Your task to perform on an android device: open the mobile data screen to see how much data has been used Image 0: 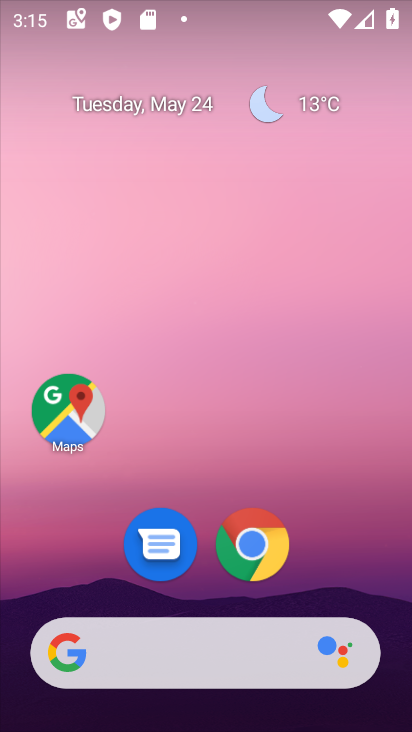
Step 0: drag from (347, 453) to (287, 0)
Your task to perform on an android device: open the mobile data screen to see how much data has been used Image 1: 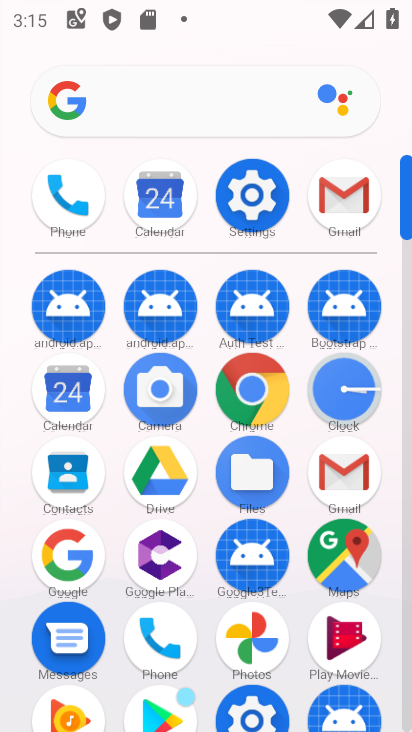
Step 1: click (266, 192)
Your task to perform on an android device: open the mobile data screen to see how much data has been used Image 2: 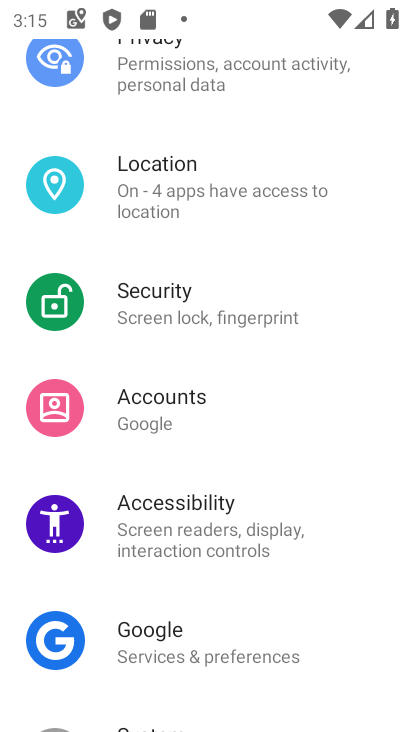
Step 2: drag from (265, 198) to (289, 619)
Your task to perform on an android device: open the mobile data screen to see how much data has been used Image 3: 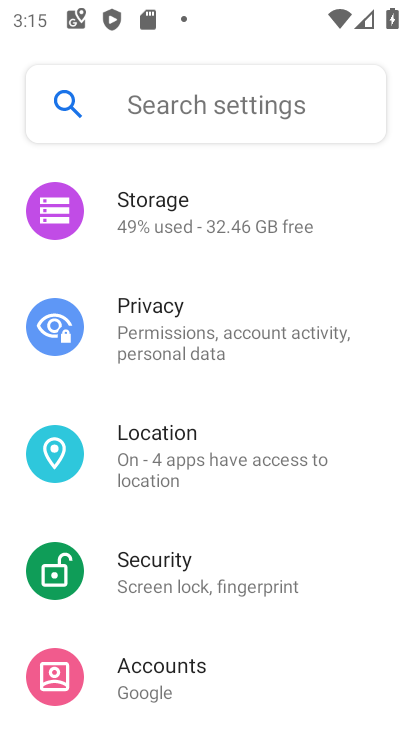
Step 3: drag from (249, 198) to (265, 666)
Your task to perform on an android device: open the mobile data screen to see how much data has been used Image 4: 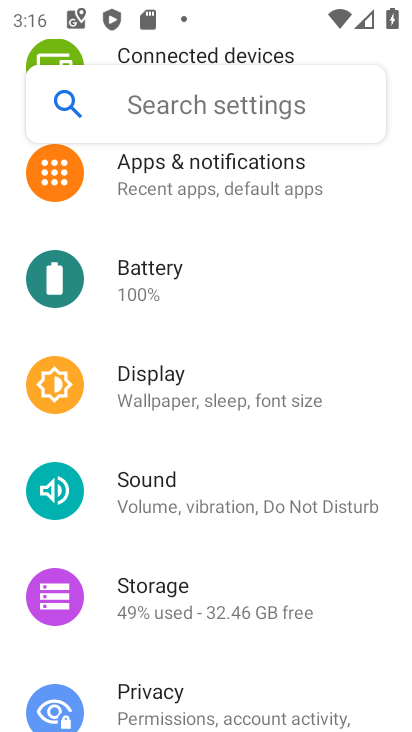
Step 4: drag from (272, 356) to (265, 632)
Your task to perform on an android device: open the mobile data screen to see how much data has been used Image 5: 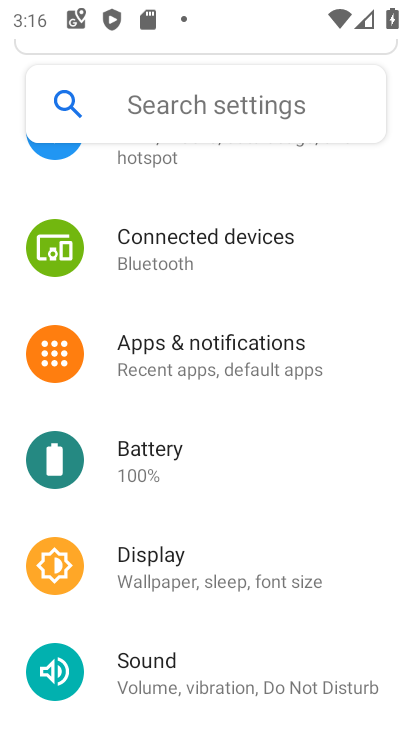
Step 5: drag from (295, 118) to (304, 572)
Your task to perform on an android device: open the mobile data screen to see how much data has been used Image 6: 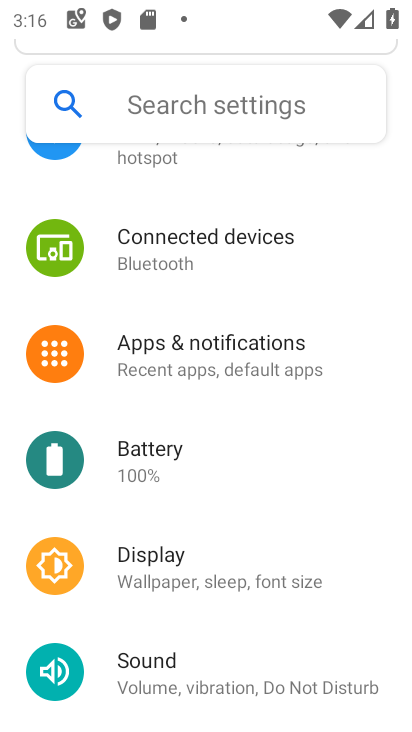
Step 6: drag from (278, 267) to (259, 642)
Your task to perform on an android device: open the mobile data screen to see how much data has been used Image 7: 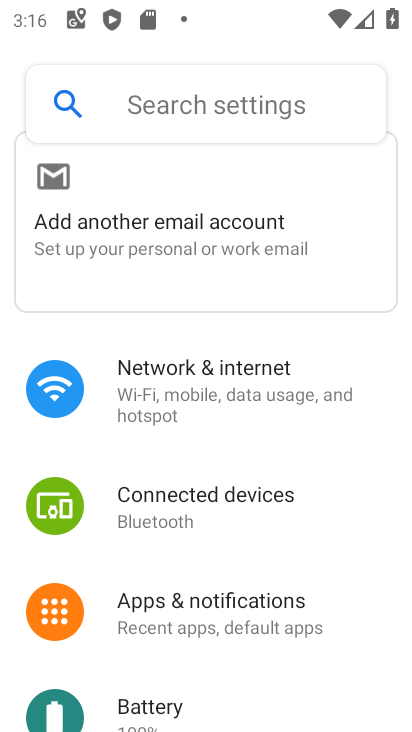
Step 7: click (230, 392)
Your task to perform on an android device: open the mobile data screen to see how much data has been used Image 8: 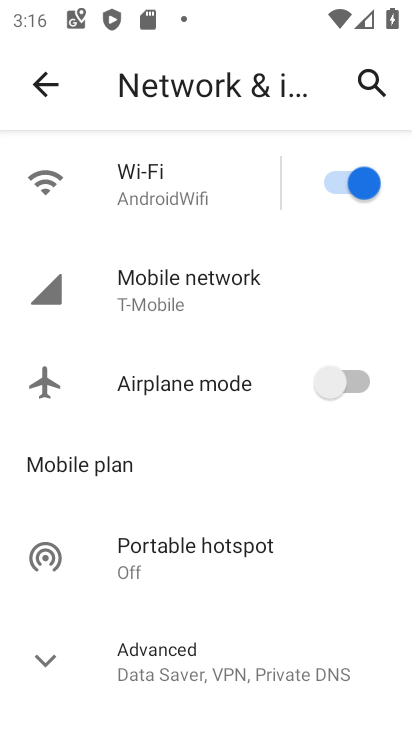
Step 8: click (193, 300)
Your task to perform on an android device: open the mobile data screen to see how much data has been used Image 9: 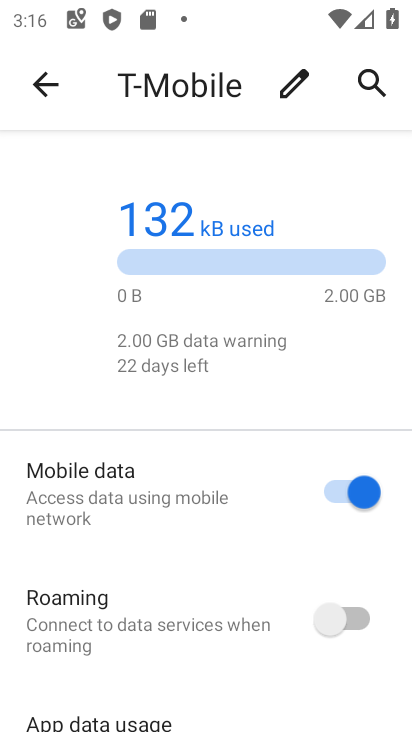
Step 9: task complete